Your task to perform on an android device: Open the phone app and click the voicemail tab. Image 0: 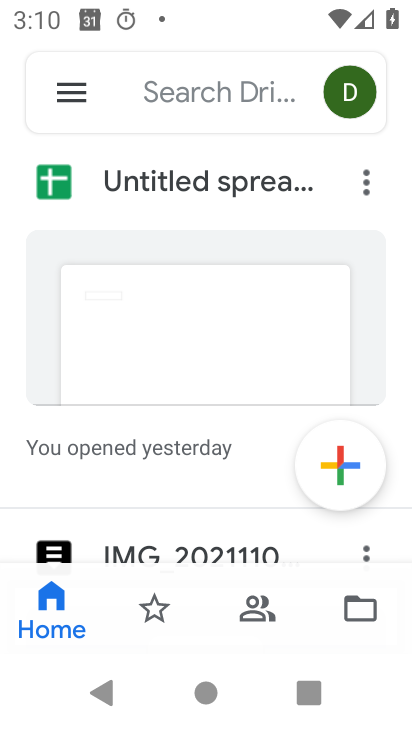
Step 0: press home button
Your task to perform on an android device: Open the phone app and click the voicemail tab. Image 1: 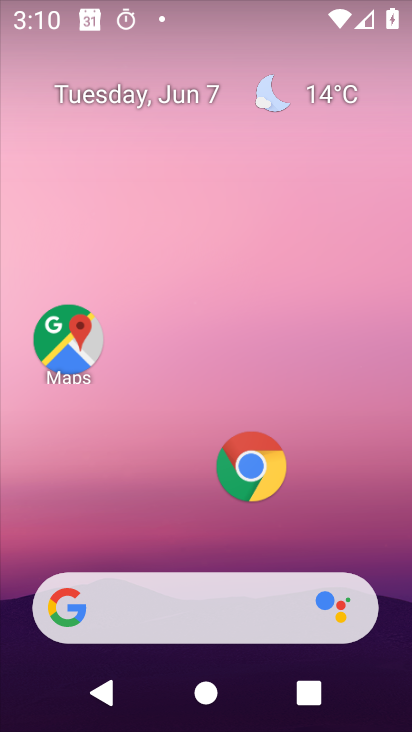
Step 1: drag from (151, 725) to (153, 47)
Your task to perform on an android device: Open the phone app and click the voicemail tab. Image 2: 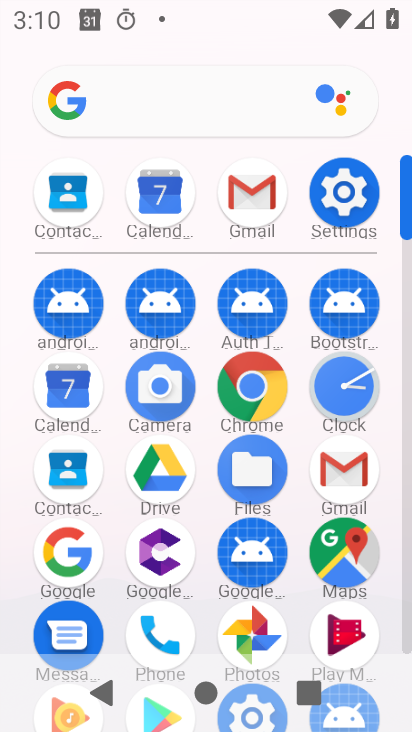
Step 2: click (159, 642)
Your task to perform on an android device: Open the phone app and click the voicemail tab. Image 3: 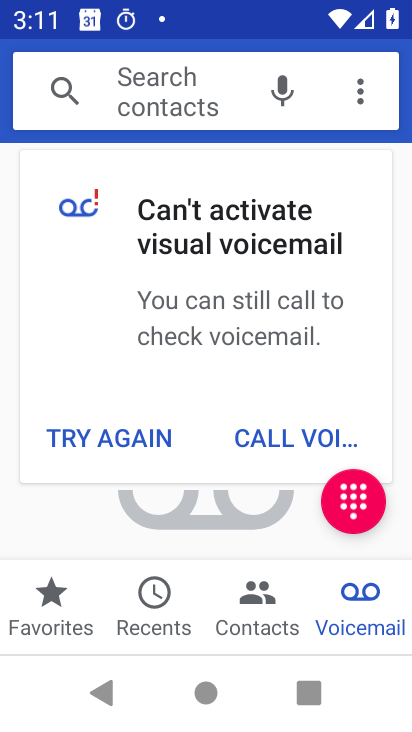
Step 3: task complete